Your task to perform on an android device: turn on wifi Image 0: 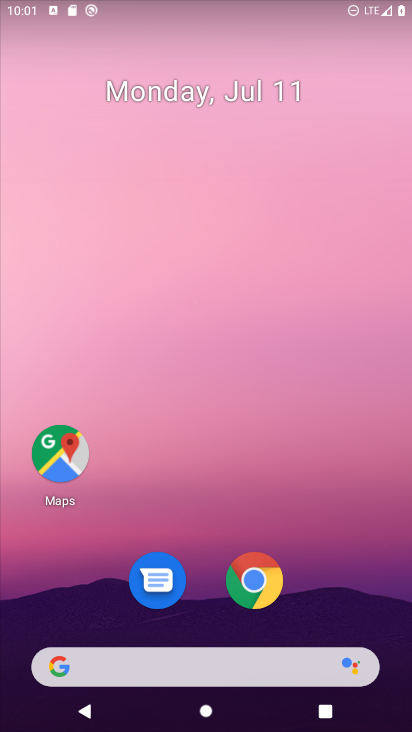
Step 0: drag from (333, 551) to (321, 77)
Your task to perform on an android device: turn on wifi Image 1: 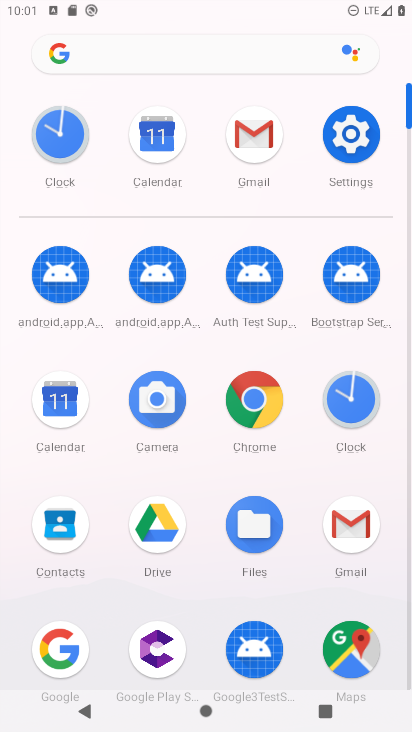
Step 1: click (350, 131)
Your task to perform on an android device: turn on wifi Image 2: 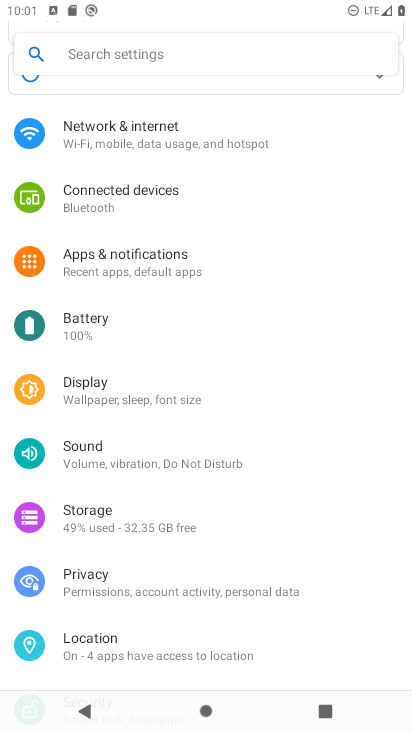
Step 2: click (181, 135)
Your task to perform on an android device: turn on wifi Image 3: 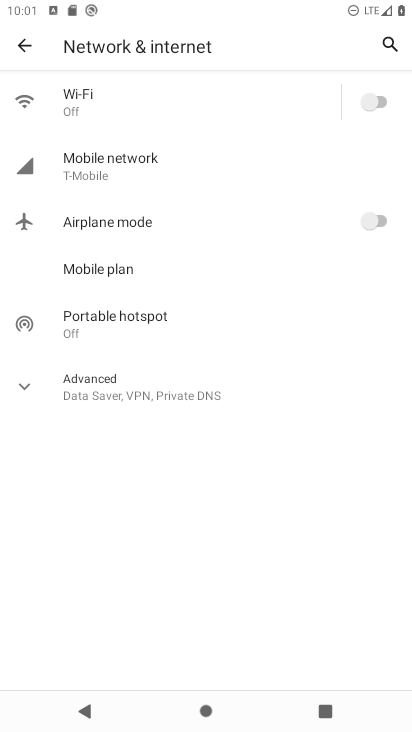
Step 3: click (375, 102)
Your task to perform on an android device: turn on wifi Image 4: 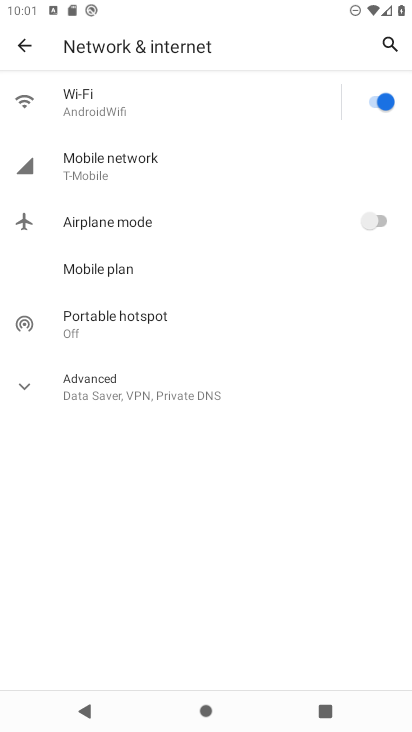
Step 4: task complete